Your task to perform on an android device: manage bookmarks in the chrome app Image 0: 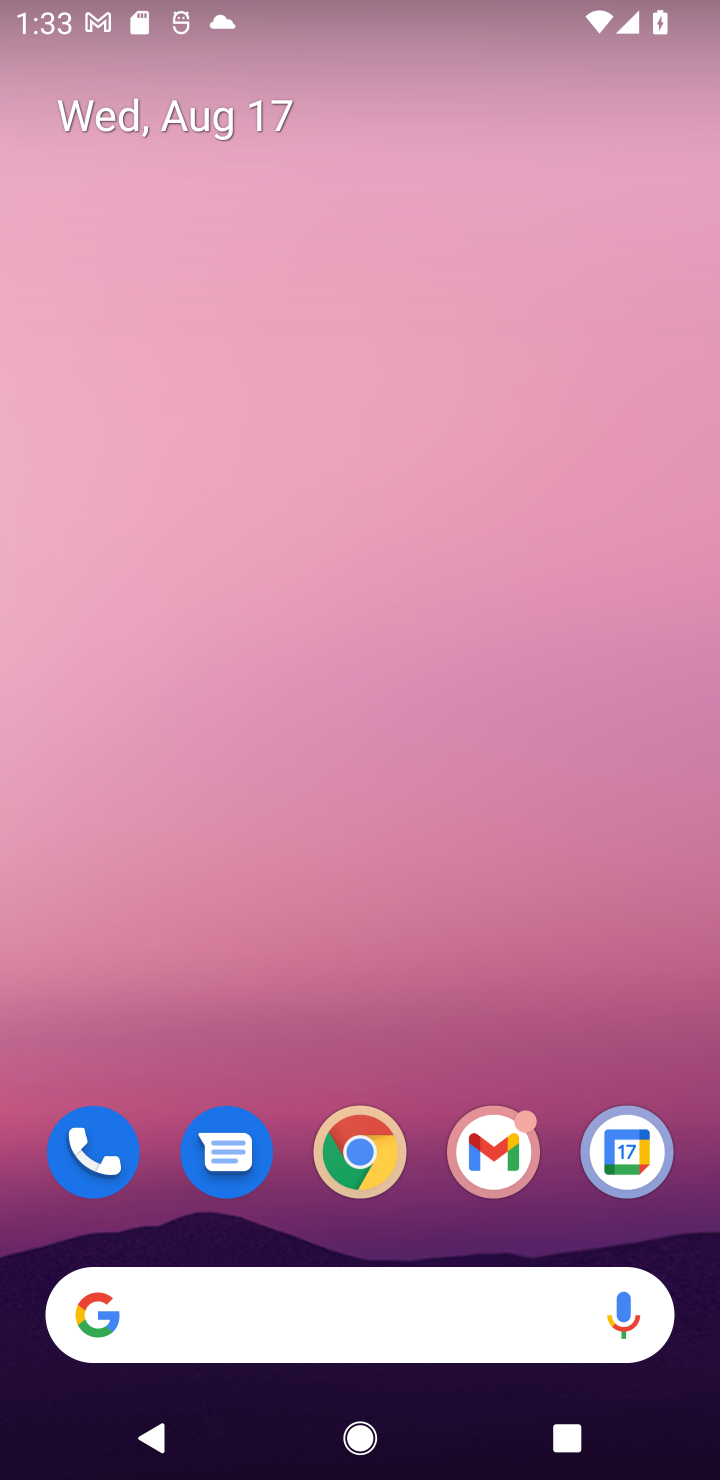
Step 0: drag from (560, 1082) to (325, 15)
Your task to perform on an android device: manage bookmarks in the chrome app Image 1: 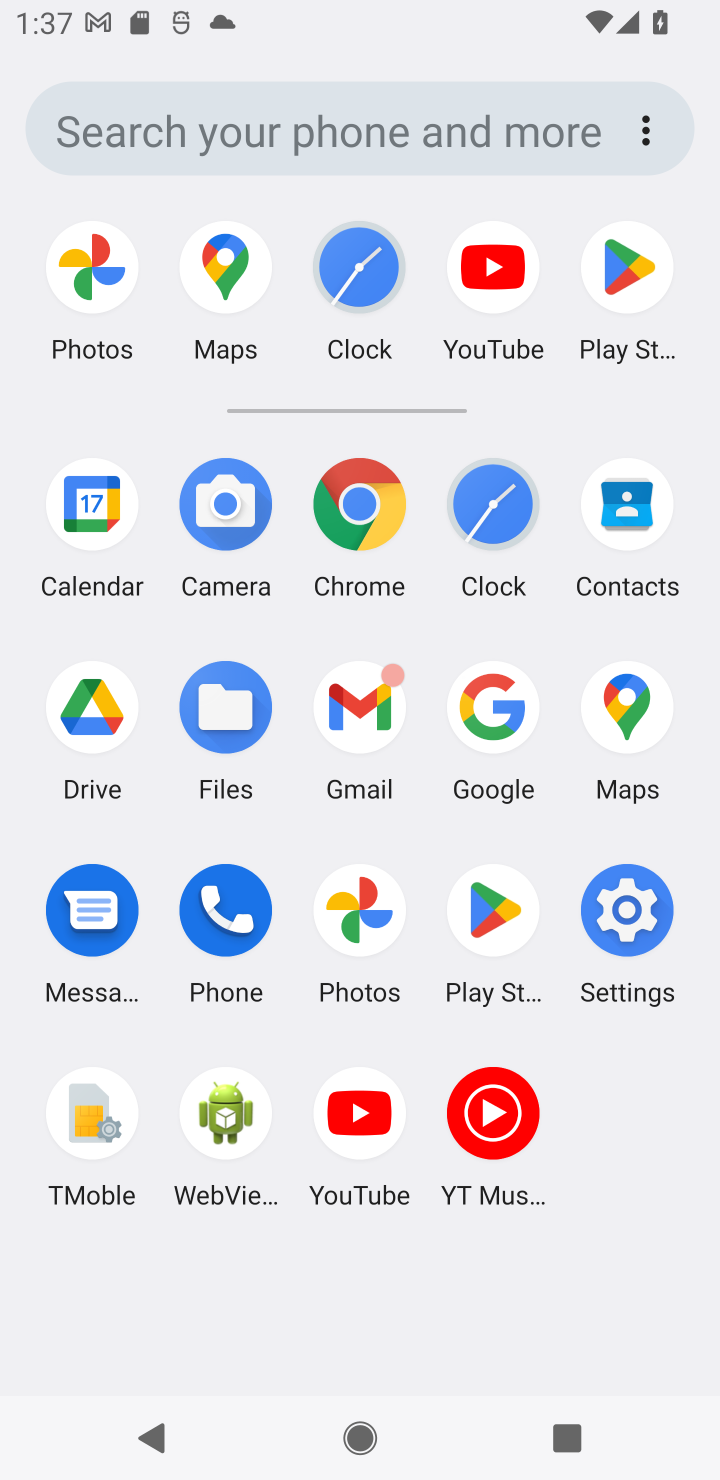
Step 1: drag from (647, 983) to (11, 320)
Your task to perform on an android device: manage bookmarks in the chrome app Image 2: 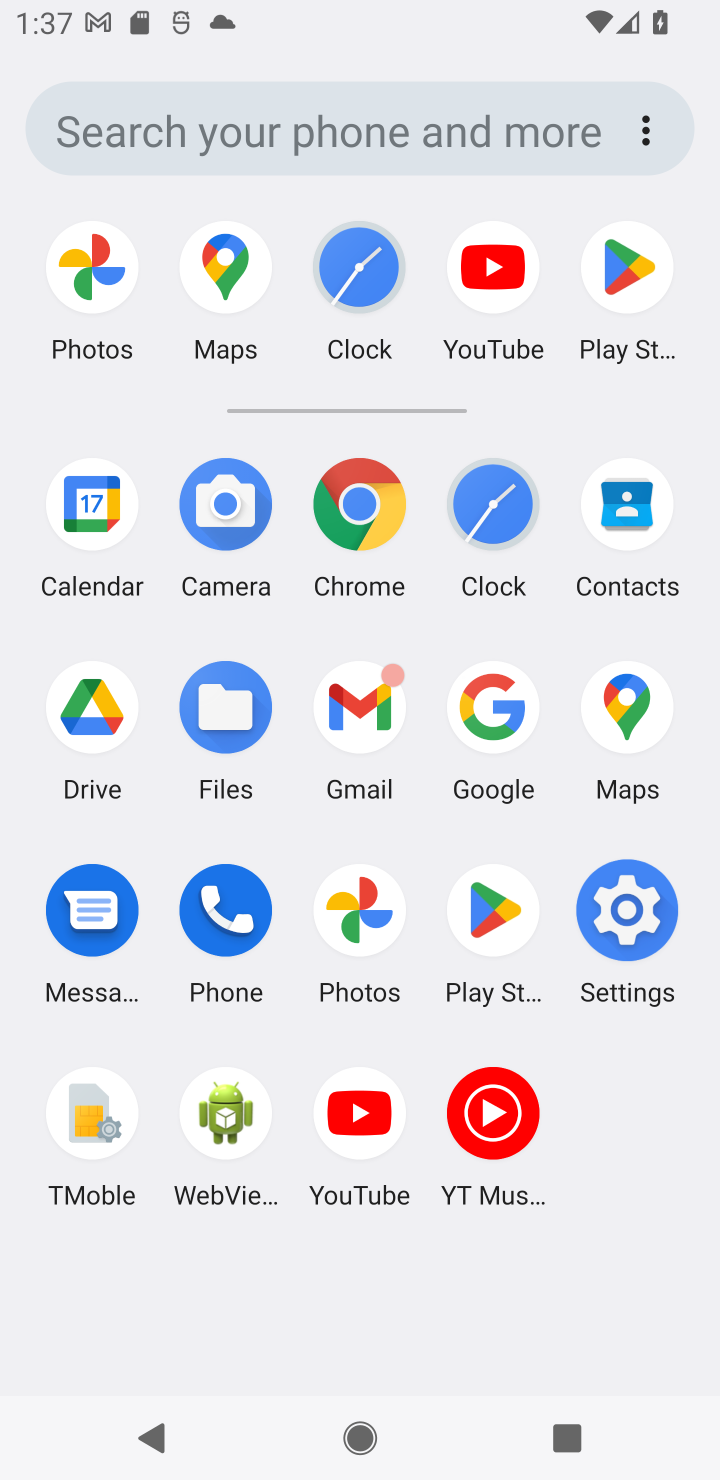
Step 2: click (336, 494)
Your task to perform on an android device: manage bookmarks in the chrome app Image 3: 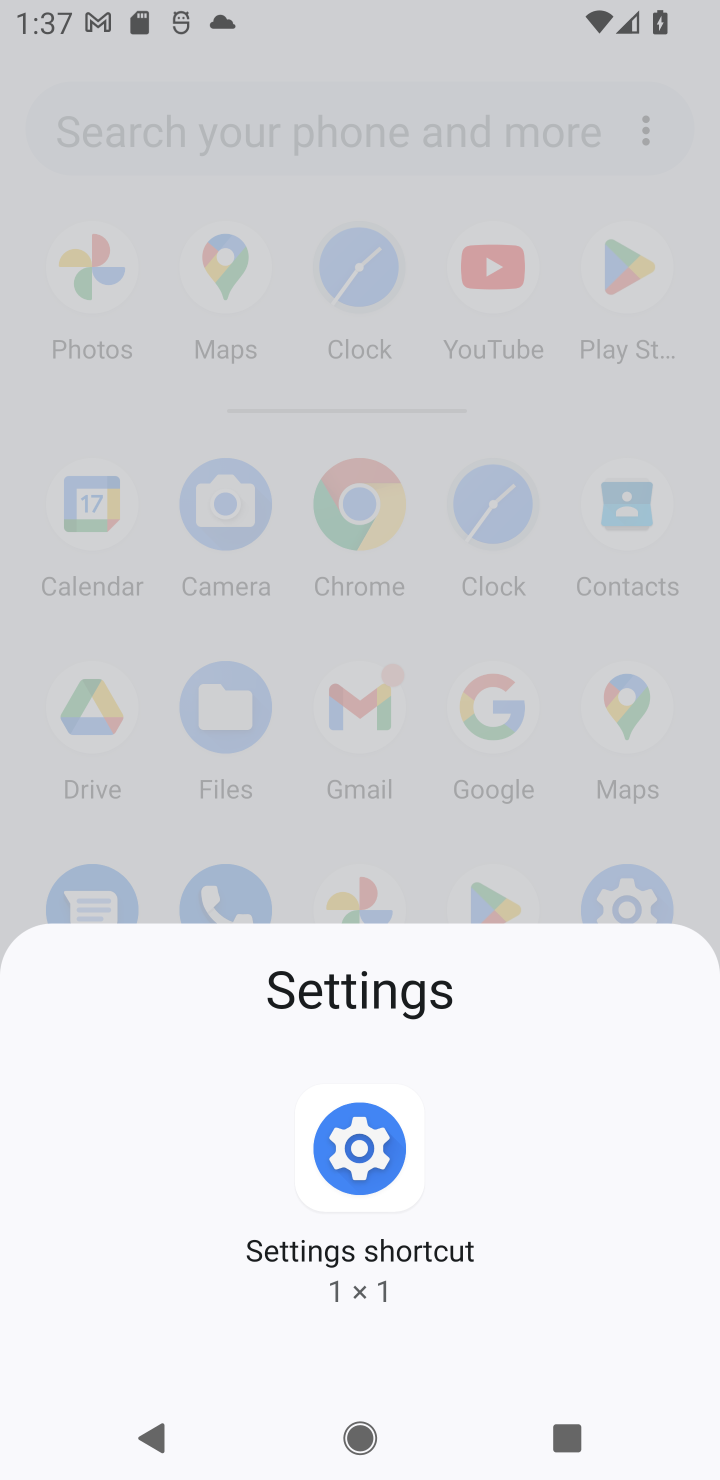
Step 3: task complete